Your task to perform on an android device: What is the recent news? Image 0: 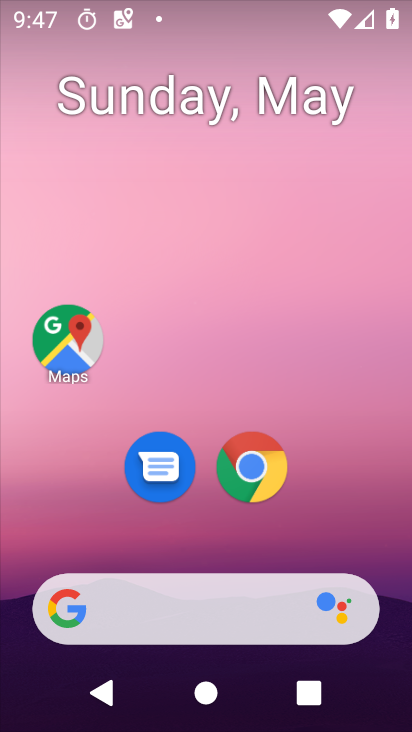
Step 0: drag from (207, 541) to (201, 246)
Your task to perform on an android device: What is the recent news? Image 1: 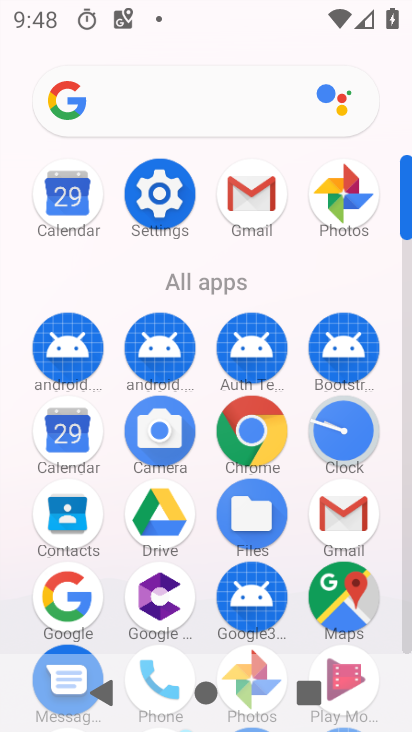
Step 1: click (67, 576)
Your task to perform on an android device: What is the recent news? Image 2: 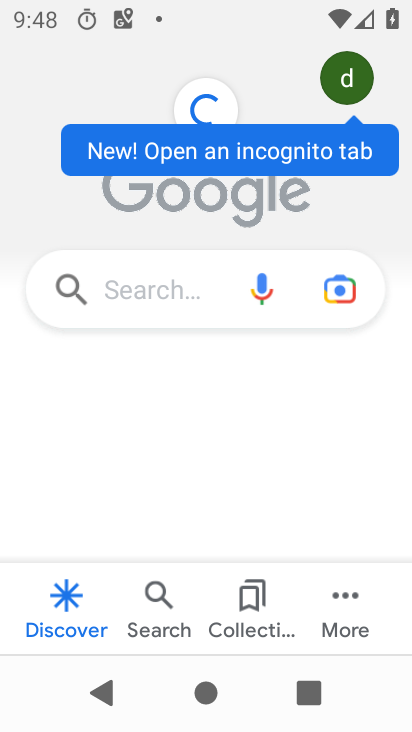
Step 2: click (154, 277)
Your task to perform on an android device: What is the recent news? Image 3: 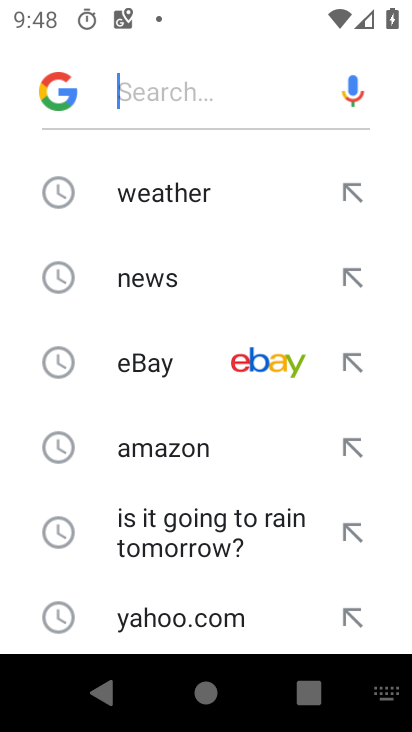
Step 3: click (154, 275)
Your task to perform on an android device: What is the recent news? Image 4: 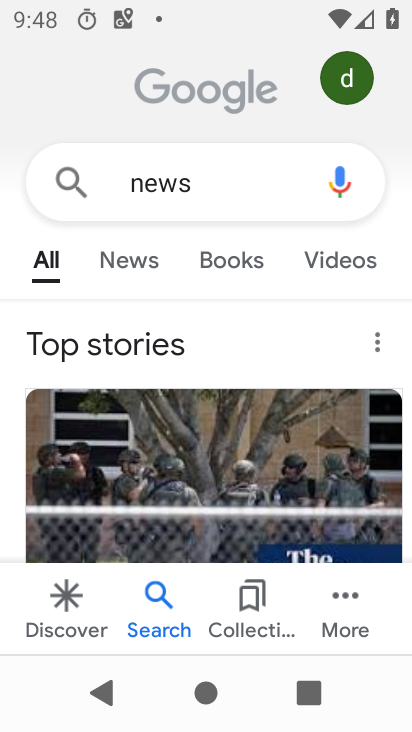
Step 4: click (145, 266)
Your task to perform on an android device: What is the recent news? Image 5: 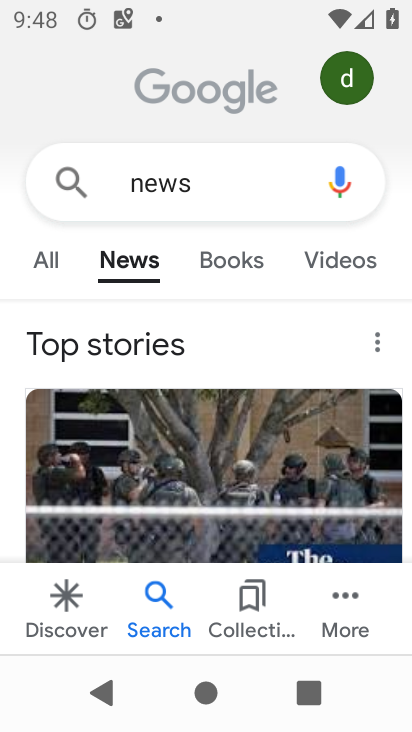
Step 5: task complete